Your task to perform on an android device: Go to eBay Image 0: 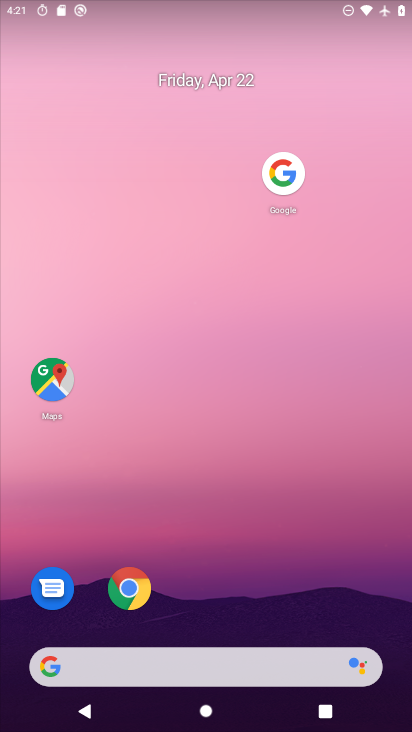
Step 0: drag from (194, 635) to (289, 7)
Your task to perform on an android device: Go to eBay Image 1: 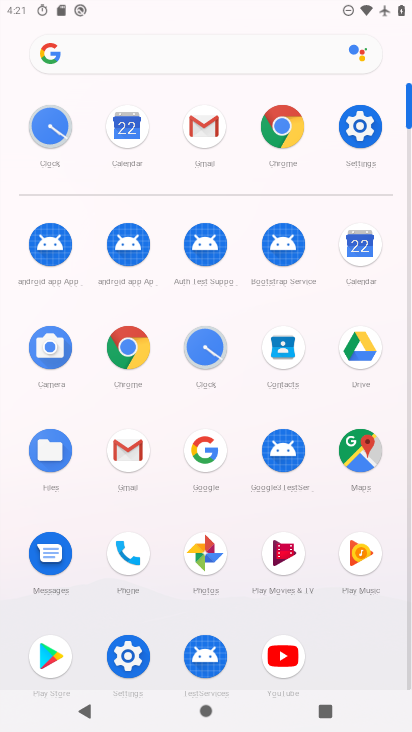
Step 1: click (115, 350)
Your task to perform on an android device: Go to eBay Image 2: 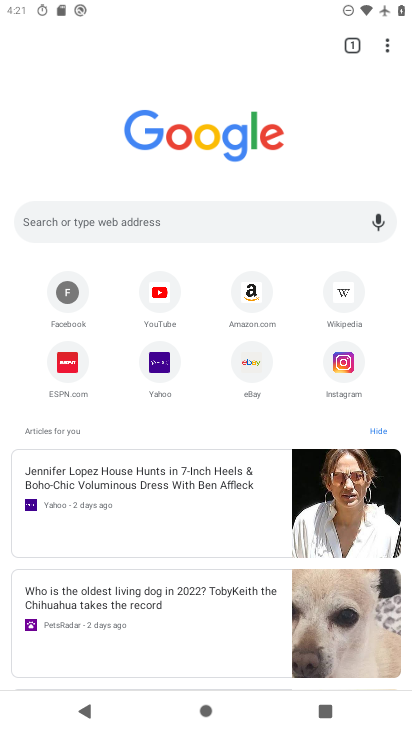
Step 2: click (264, 358)
Your task to perform on an android device: Go to eBay Image 3: 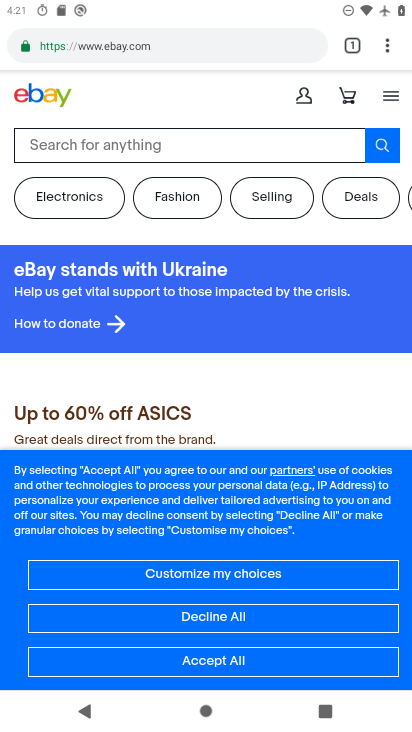
Step 3: task complete